Your task to perform on an android device: change notifications settings Image 0: 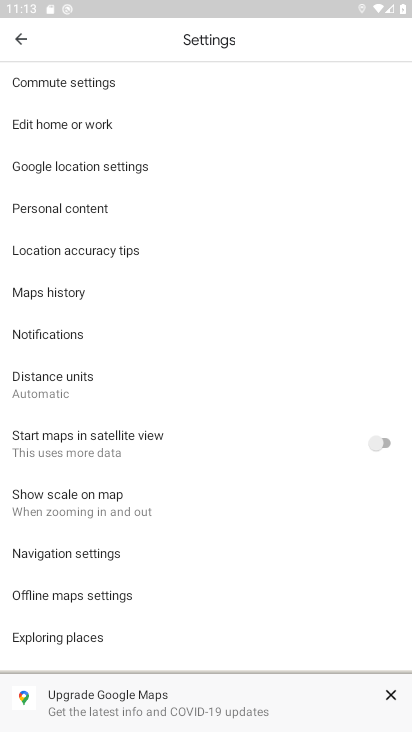
Step 0: press home button
Your task to perform on an android device: change notifications settings Image 1: 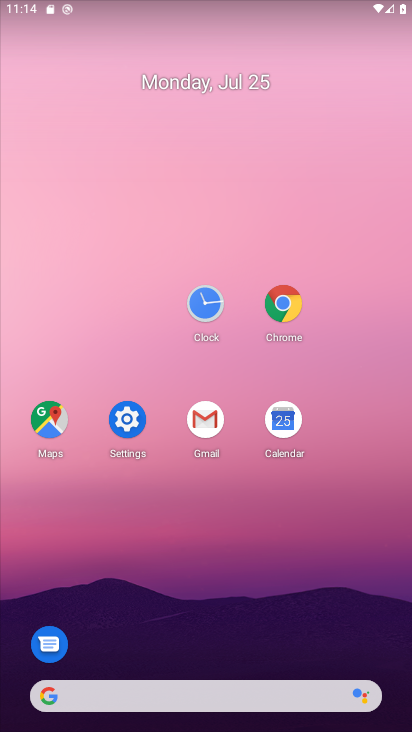
Step 1: click (138, 426)
Your task to perform on an android device: change notifications settings Image 2: 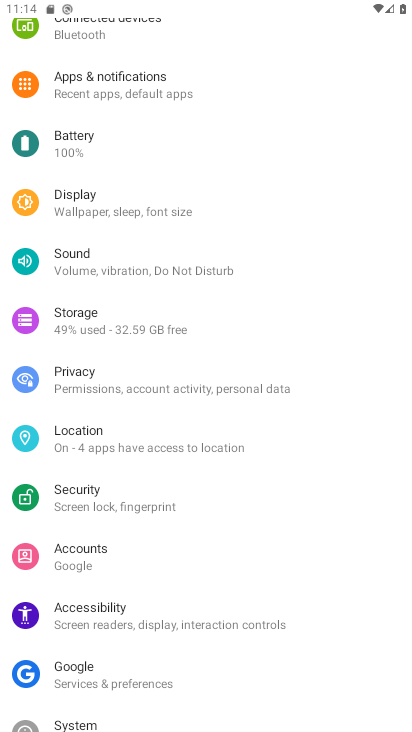
Step 2: click (114, 85)
Your task to perform on an android device: change notifications settings Image 3: 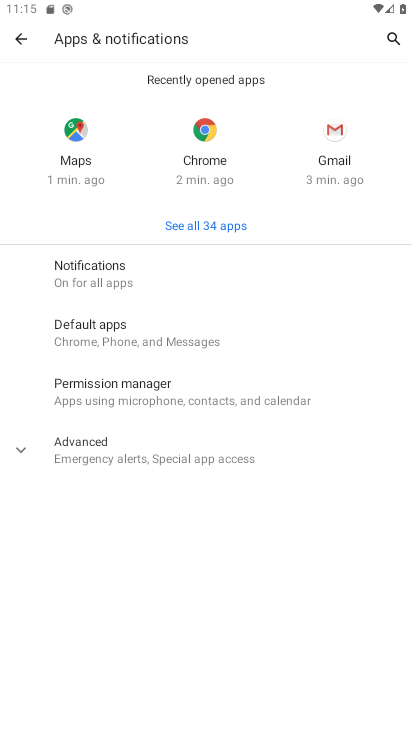
Step 3: click (27, 446)
Your task to perform on an android device: change notifications settings Image 4: 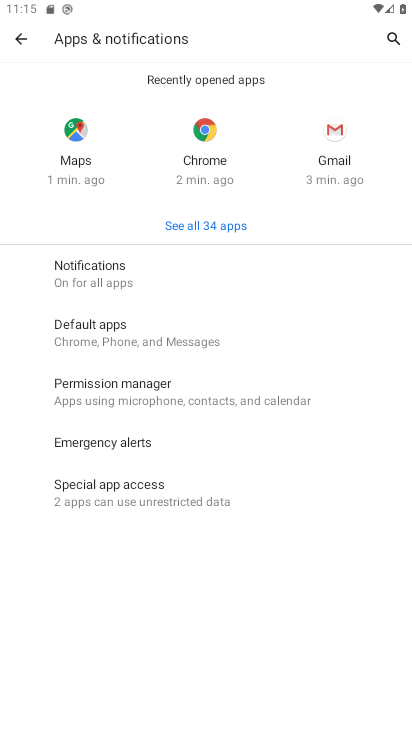
Step 4: task complete